Your task to perform on an android device: allow cookies in the chrome app Image 0: 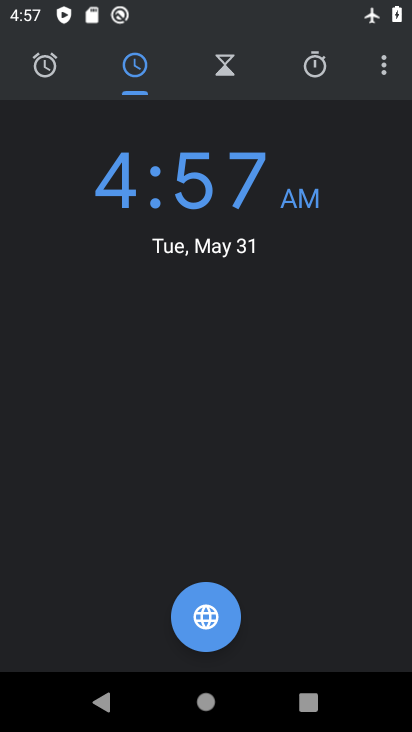
Step 0: press home button
Your task to perform on an android device: allow cookies in the chrome app Image 1: 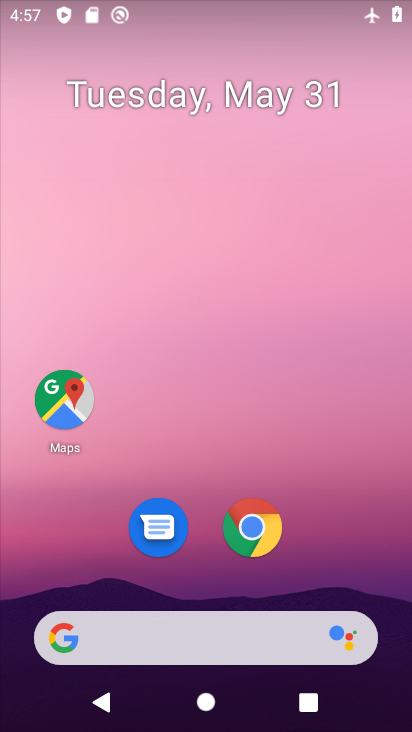
Step 1: drag from (228, 570) to (217, 150)
Your task to perform on an android device: allow cookies in the chrome app Image 2: 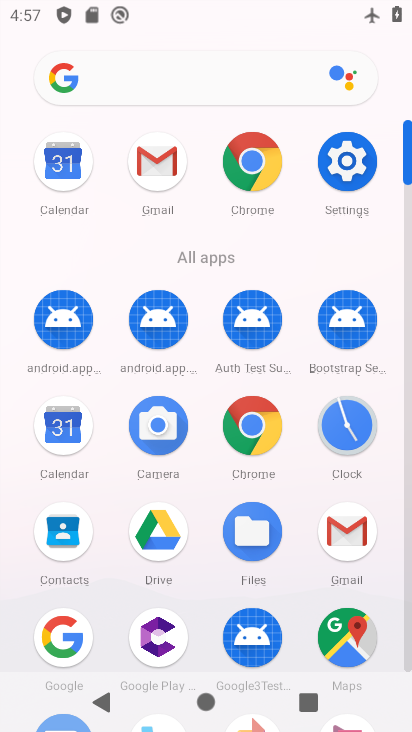
Step 2: click (254, 429)
Your task to perform on an android device: allow cookies in the chrome app Image 3: 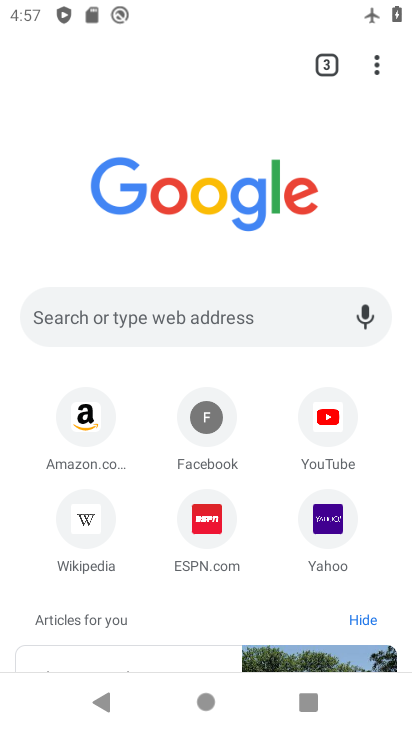
Step 3: drag from (338, 7) to (289, 461)
Your task to perform on an android device: allow cookies in the chrome app Image 4: 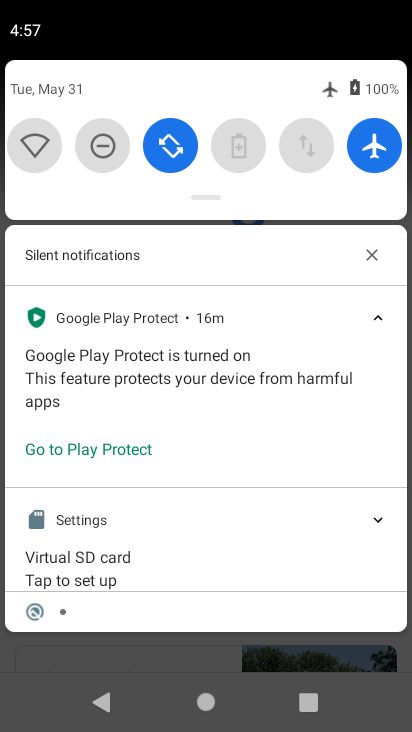
Step 4: click (374, 144)
Your task to perform on an android device: allow cookies in the chrome app Image 5: 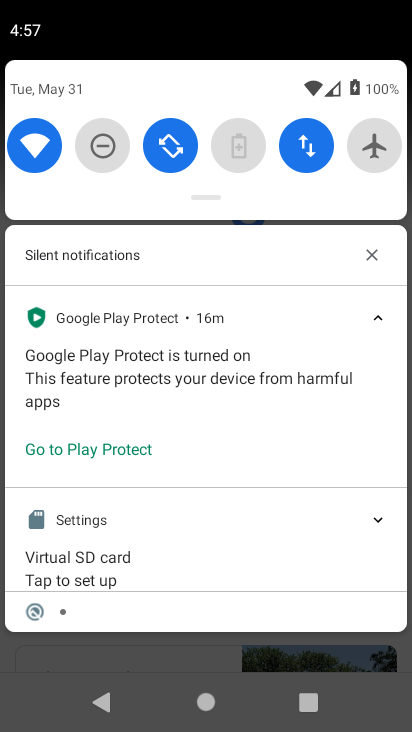
Step 5: click (401, 647)
Your task to perform on an android device: allow cookies in the chrome app Image 6: 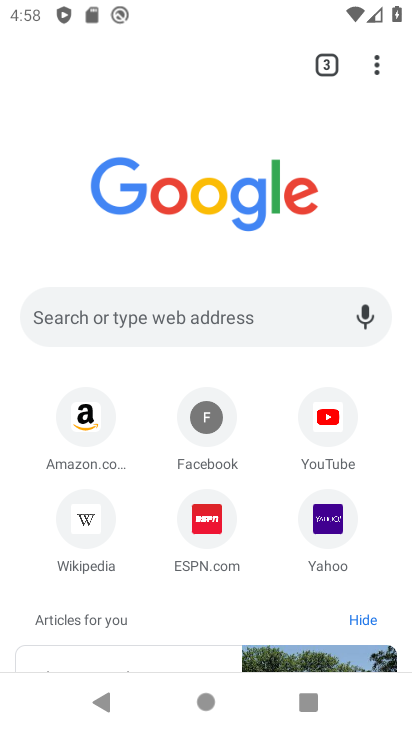
Step 6: drag from (376, 62) to (138, 542)
Your task to perform on an android device: allow cookies in the chrome app Image 7: 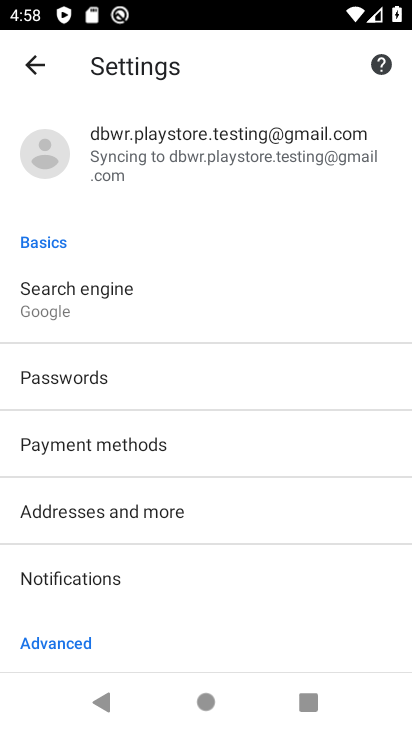
Step 7: drag from (147, 613) to (162, 288)
Your task to perform on an android device: allow cookies in the chrome app Image 8: 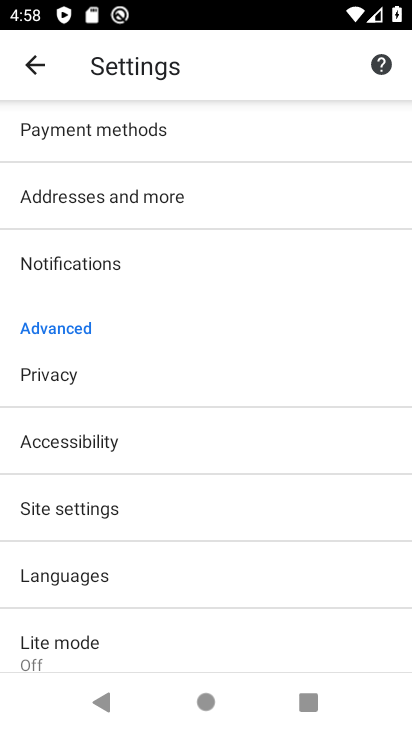
Step 8: click (106, 506)
Your task to perform on an android device: allow cookies in the chrome app Image 9: 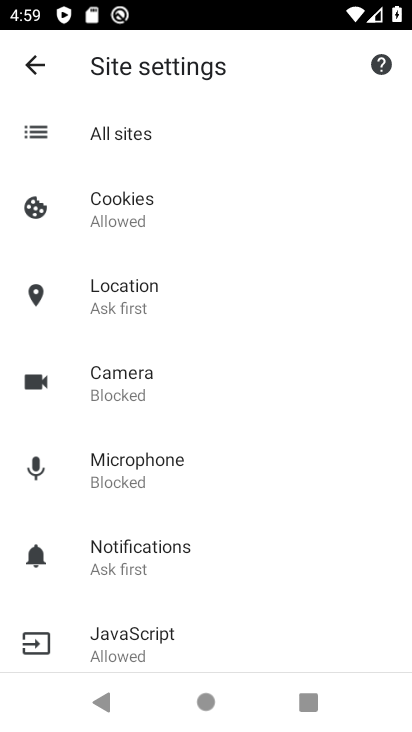
Step 9: click (97, 213)
Your task to perform on an android device: allow cookies in the chrome app Image 10: 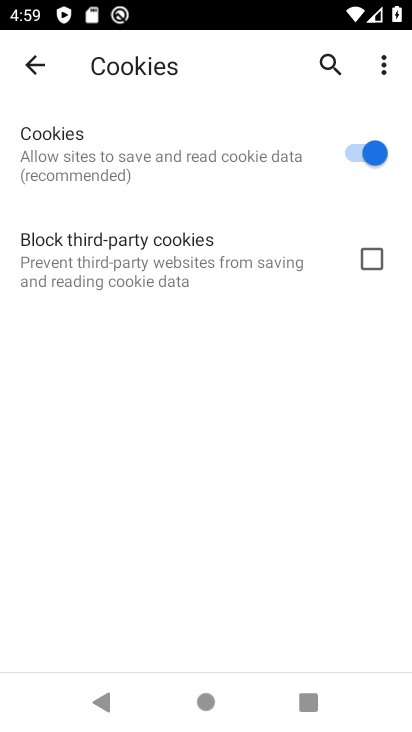
Step 10: task complete